Your task to perform on an android device: turn off notifications settings in the gmail app Image 0: 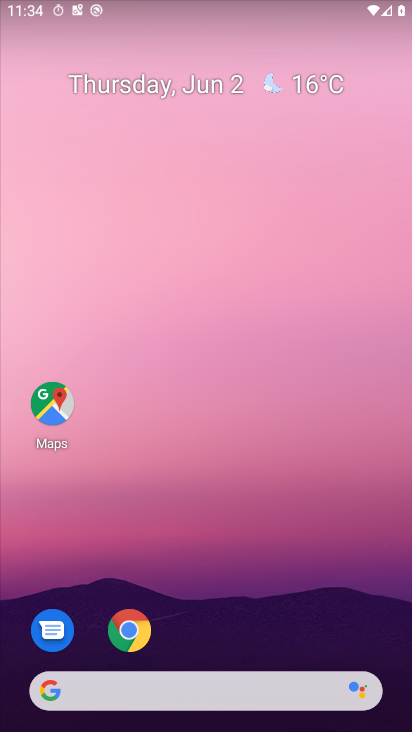
Step 0: drag from (225, 623) to (318, 15)
Your task to perform on an android device: turn off notifications settings in the gmail app Image 1: 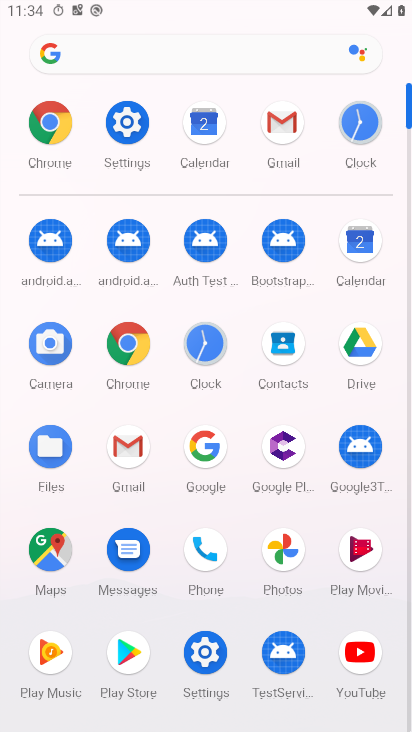
Step 1: click (135, 485)
Your task to perform on an android device: turn off notifications settings in the gmail app Image 2: 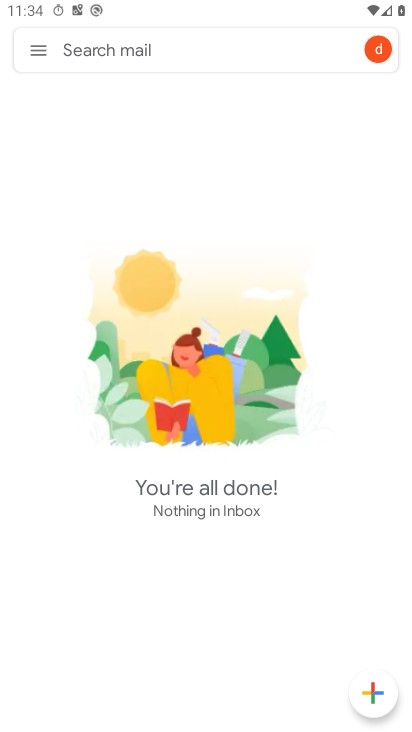
Step 2: click (44, 47)
Your task to perform on an android device: turn off notifications settings in the gmail app Image 3: 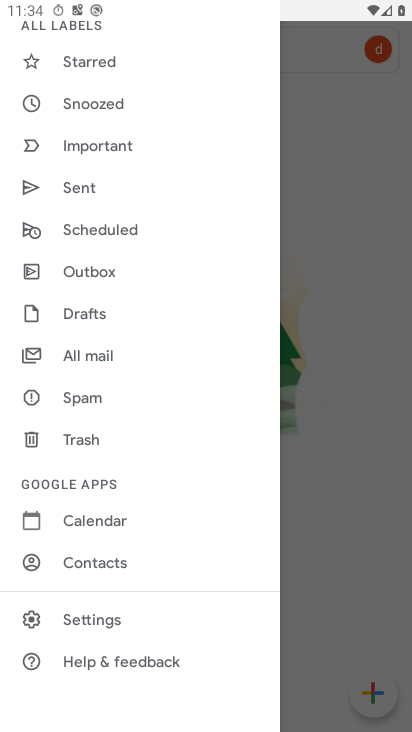
Step 3: click (91, 619)
Your task to perform on an android device: turn off notifications settings in the gmail app Image 4: 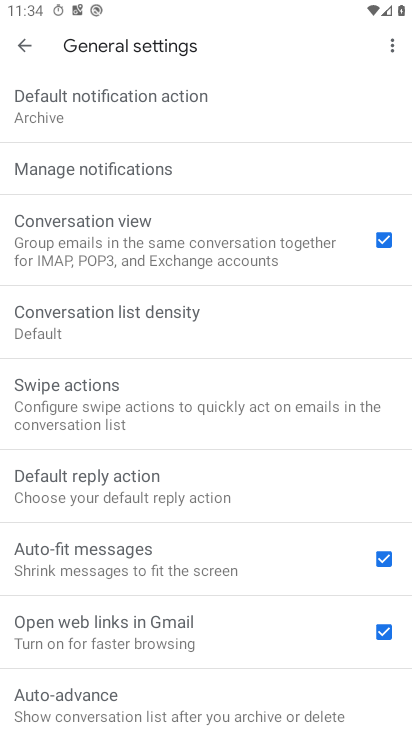
Step 4: click (108, 169)
Your task to perform on an android device: turn off notifications settings in the gmail app Image 5: 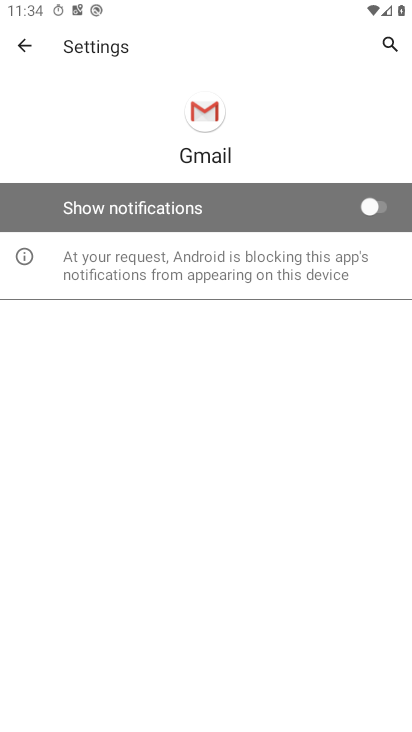
Step 5: task complete